Your task to perform on an android device: Do I have any events tomorrow? Image 0: 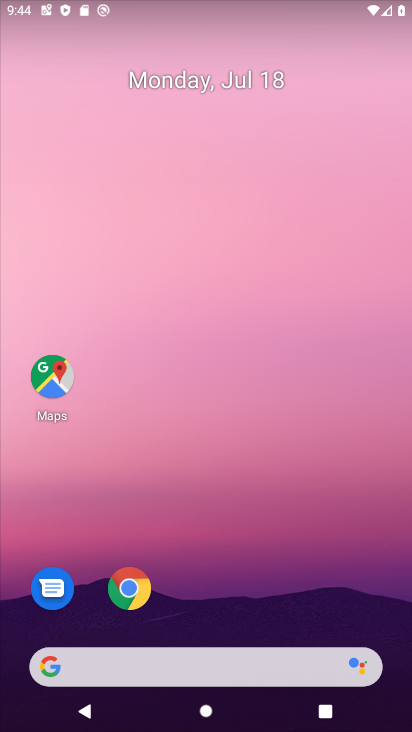
Step 0: drag from (336, 564) to (257, 114)
Your task to perform on an android device: Do I have any events tomorrow? Image 1: 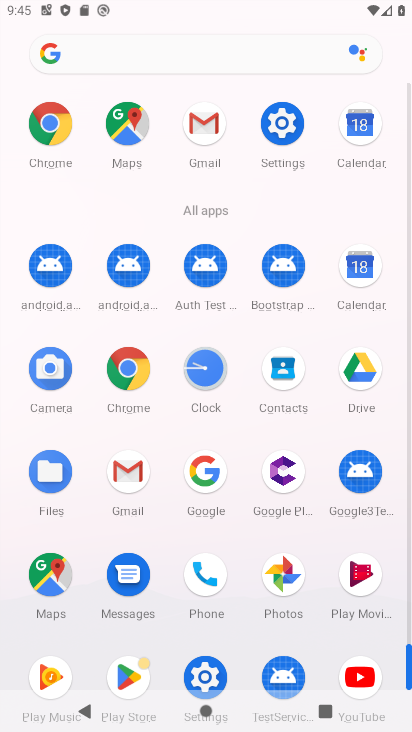
Step 1: drag from (319, 541) to (303, 725)
Your task to perform on an android device: Do I have any events tomorrow? Image 2: 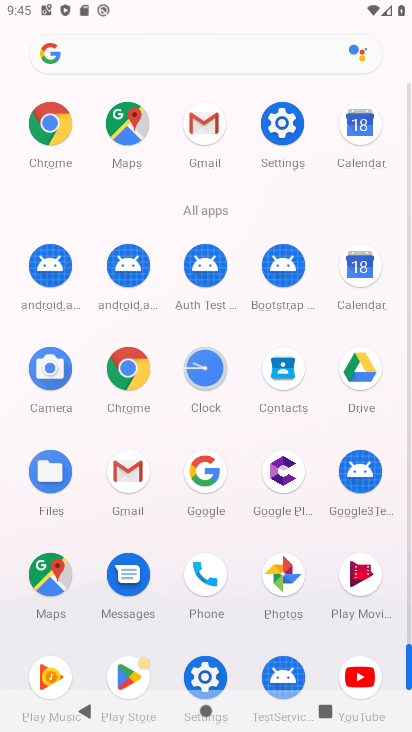
Step 2: drag from (241, 205) to (256, 725)
Your task to perform on an android device: Do I have any events tomorrow? Image 3: 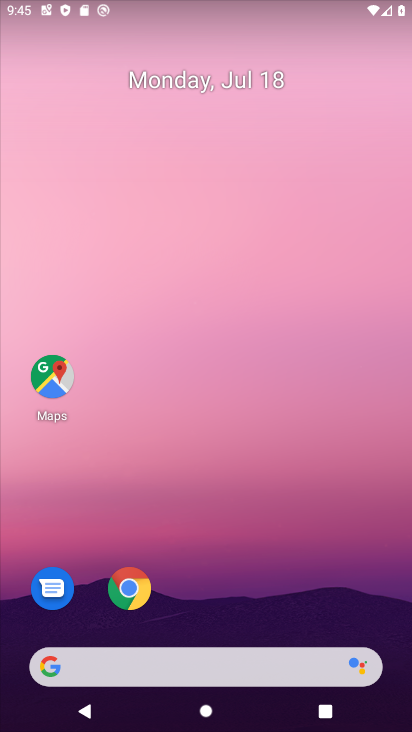
Step 3: drag from (276, 587) to (191, 75)
Your task to perform on an android device: Do I have any events tomorrow? Image 4: 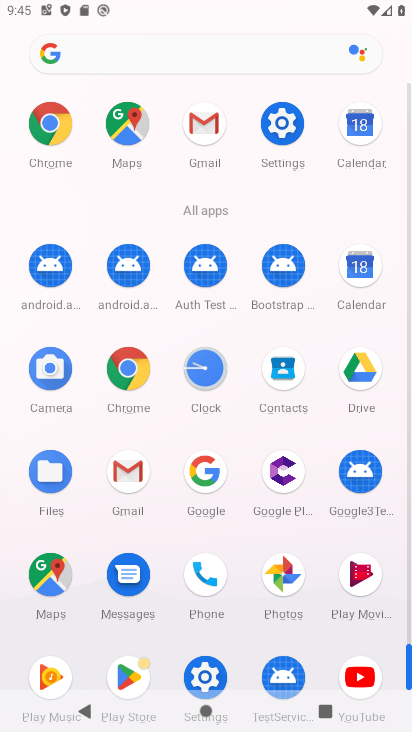
Step 4: click (366, 118)
Your task to perform on an android device: Do I have any events tomorrow? Image 5: 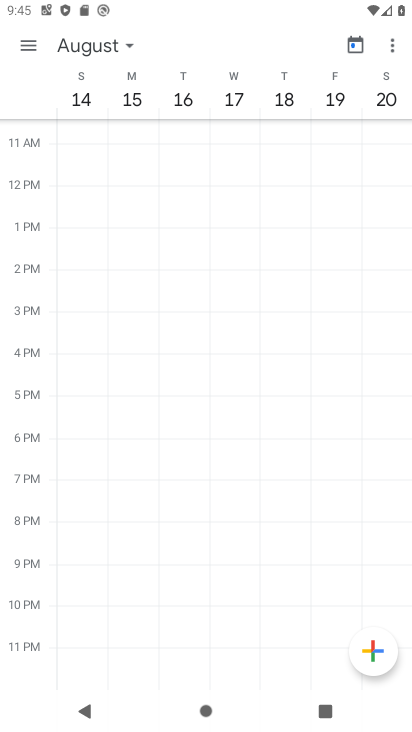
Step 5: click (34, 44)
Your task to perform on an android device: Do I have any events tomorrow? Image 6: 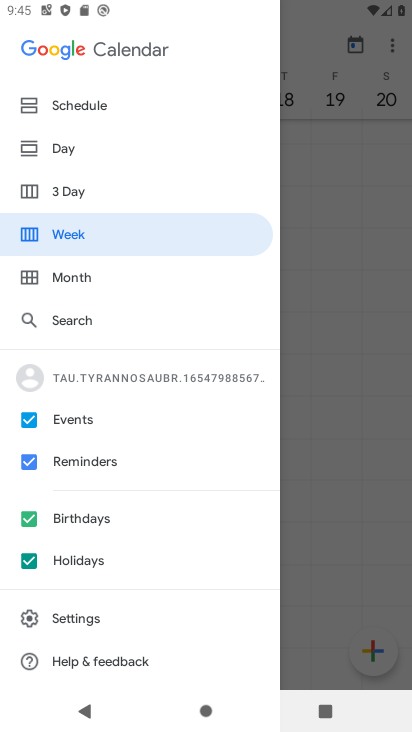
Step 6: click (85, 152)
Your task to perform on an android device: Do I have any events tomorrow? Image 7: 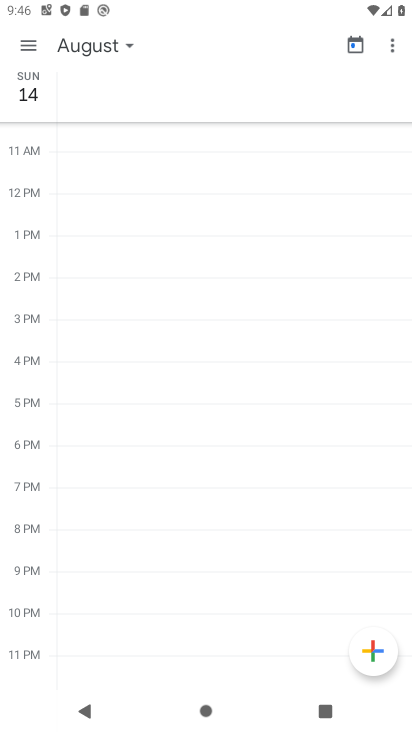
Step 7: click (87, 44)
Your task to perform on an android device: Do I have any events tomorrow? Image 8: 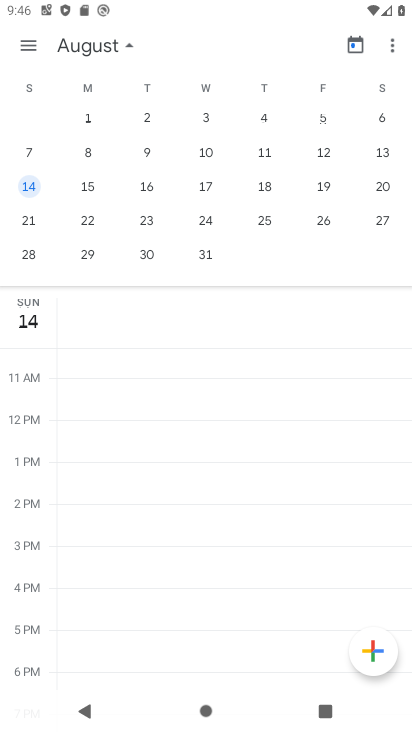
Step 8: click (67, 201)
Your task to perform on an android device: Do I have any events tomorrow? Image 9: 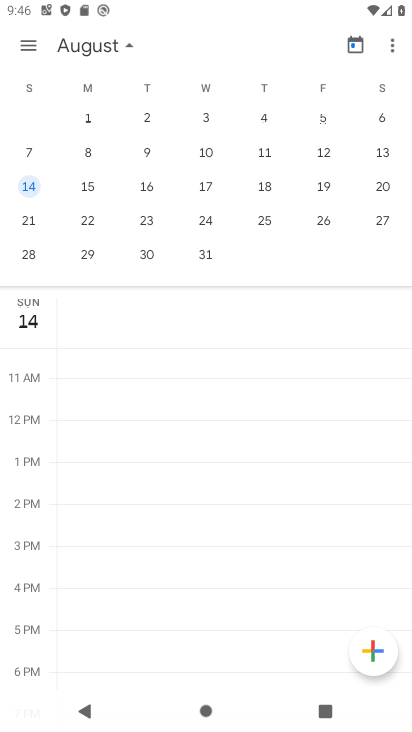
Step 9: drag from (67, 201) to (400, 190)
Your task to perform on an android device: Do I have any events tomorrow? Image 10: 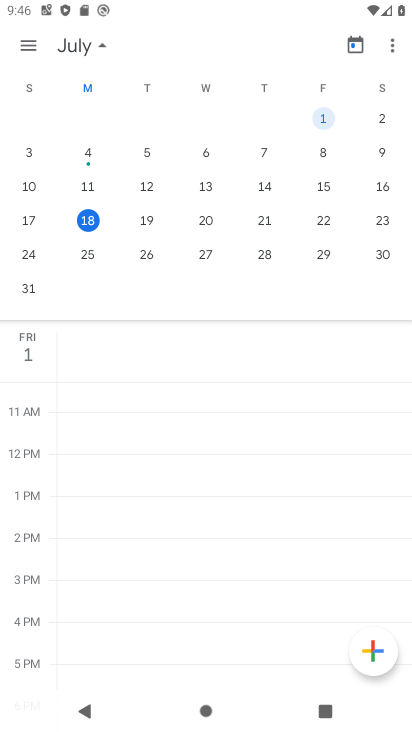
Step 10: click (143, 215)
Your task to perform on an android device: Do I have any events tomorrow? Image 11: 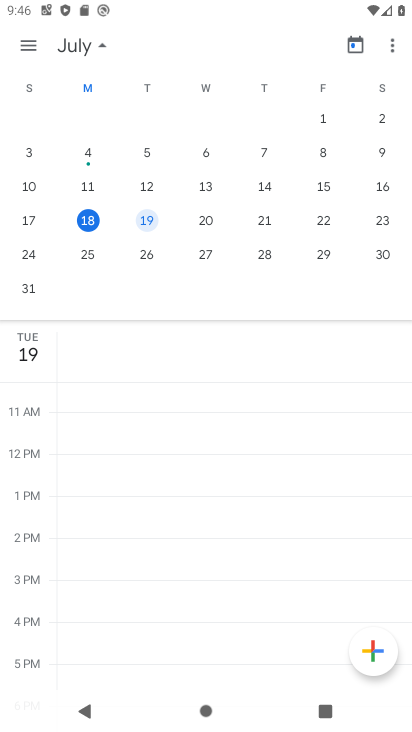
Step 11: task complete